Your task to perform on an android device: Show me the alarms in the clock app Image 0: 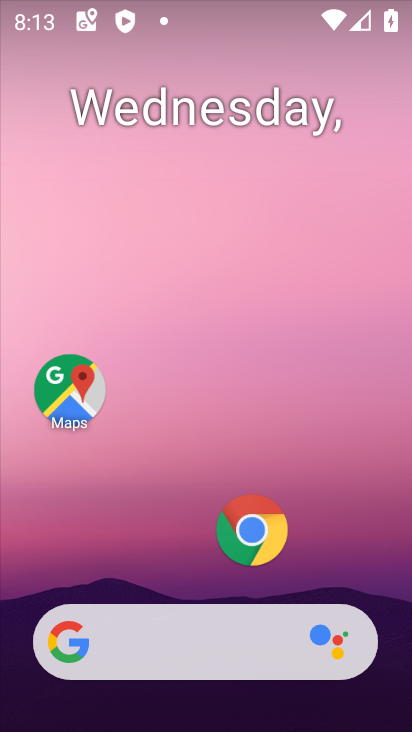
Step 0: drag from (166, 586) to (250, 61)
Your task to perform on an android device: Show me the alarms in the clock app Image 1: 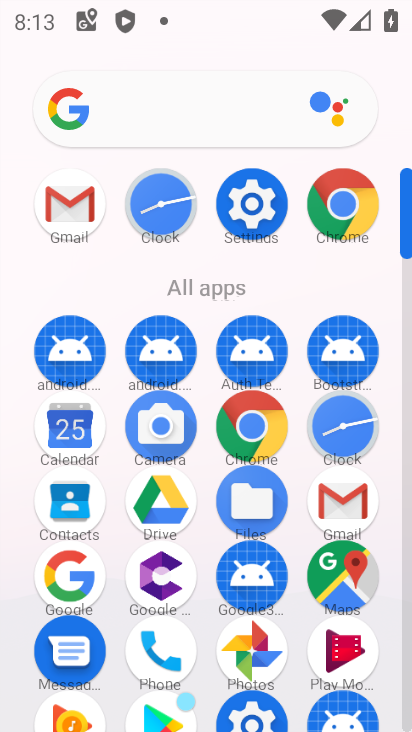
Step 1: click (343, 416)
Your task to perform on an android device: Show me the alarms in the clock app Image 2: 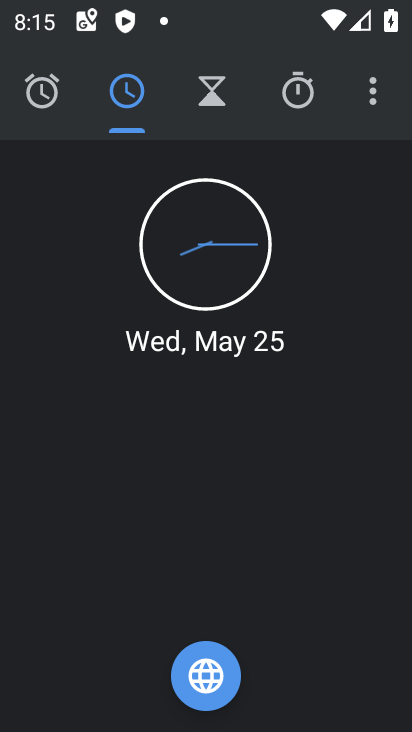
Step 2: click (39, 91)
Your task to perform on an android device: Show me the alarms in the clock app Image 3: 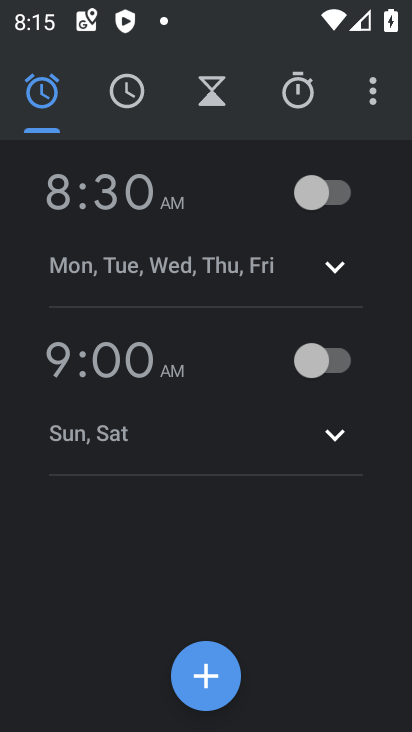
Step 3: task complete